Your task to perform on an android device: Go to privacy settings Image 0: 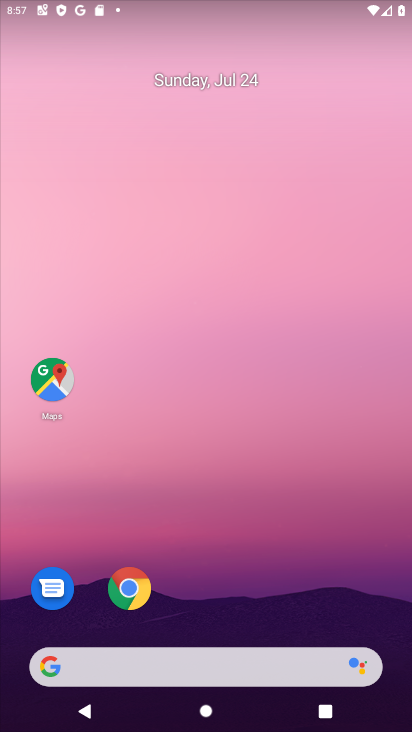
Step 0: drag from (221, 649) to (230, 98)
Your task to perform on an android device: Go to privacy settings Image 1: 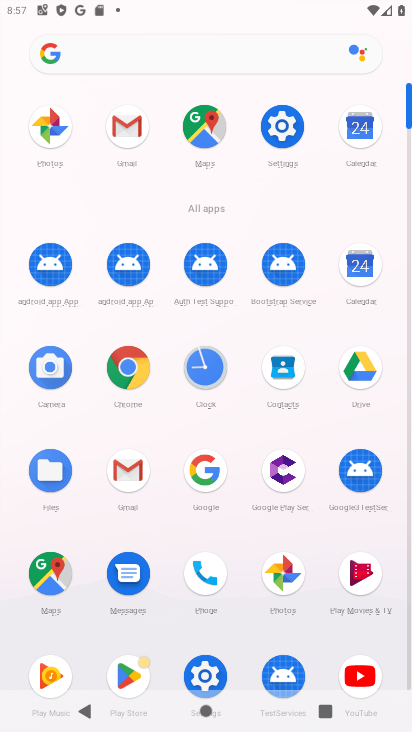
Step 1: click (145, 366)
Your task to perform on an android device: Go to privacy settings Image 2: 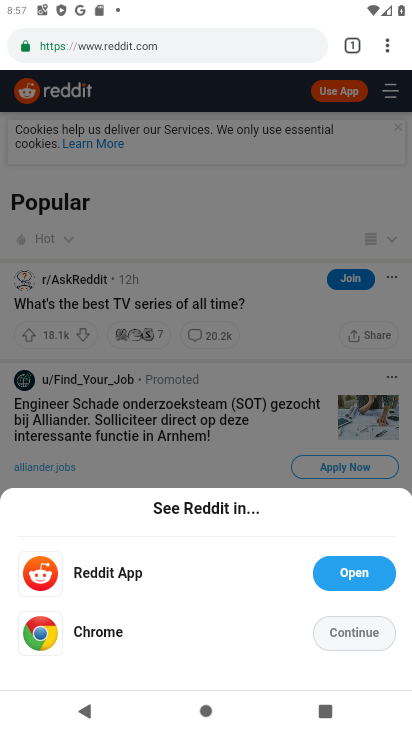
Step 2: drag from (382, 40) to (232, 551)
Your task to perform on an android device: Go to privacy settings Image 3: 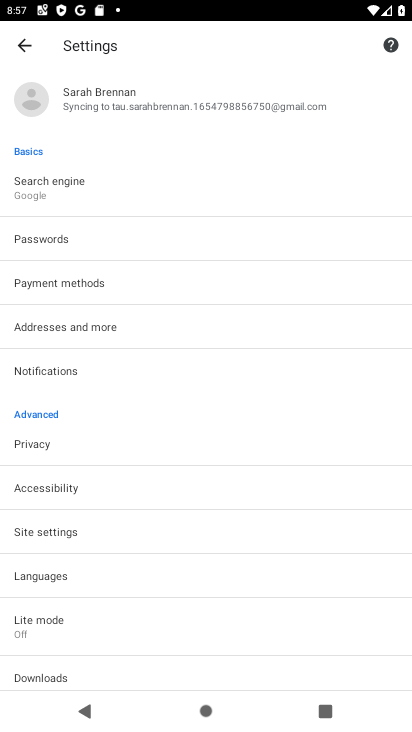
Step 3: click (78, 447)
Your task to perform on an android device: Go to privacy settings Image 4: 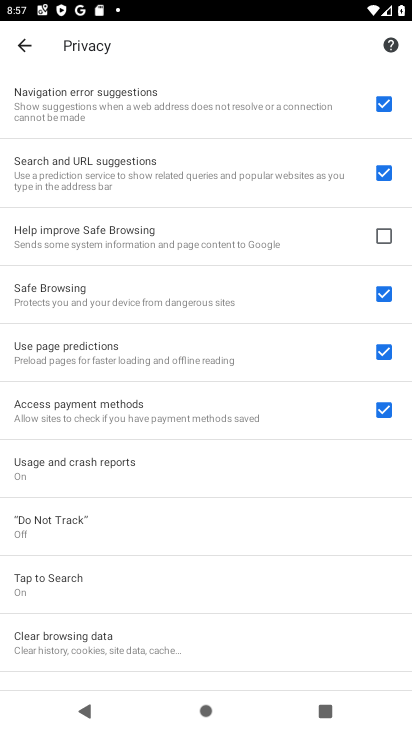
Step 4: task complete